Your task to perform on an android device: open app "Duolingo: language lessons" (install if not already installed) and enter user name: "omens@gmail.com" and password: "casks" Image 0: 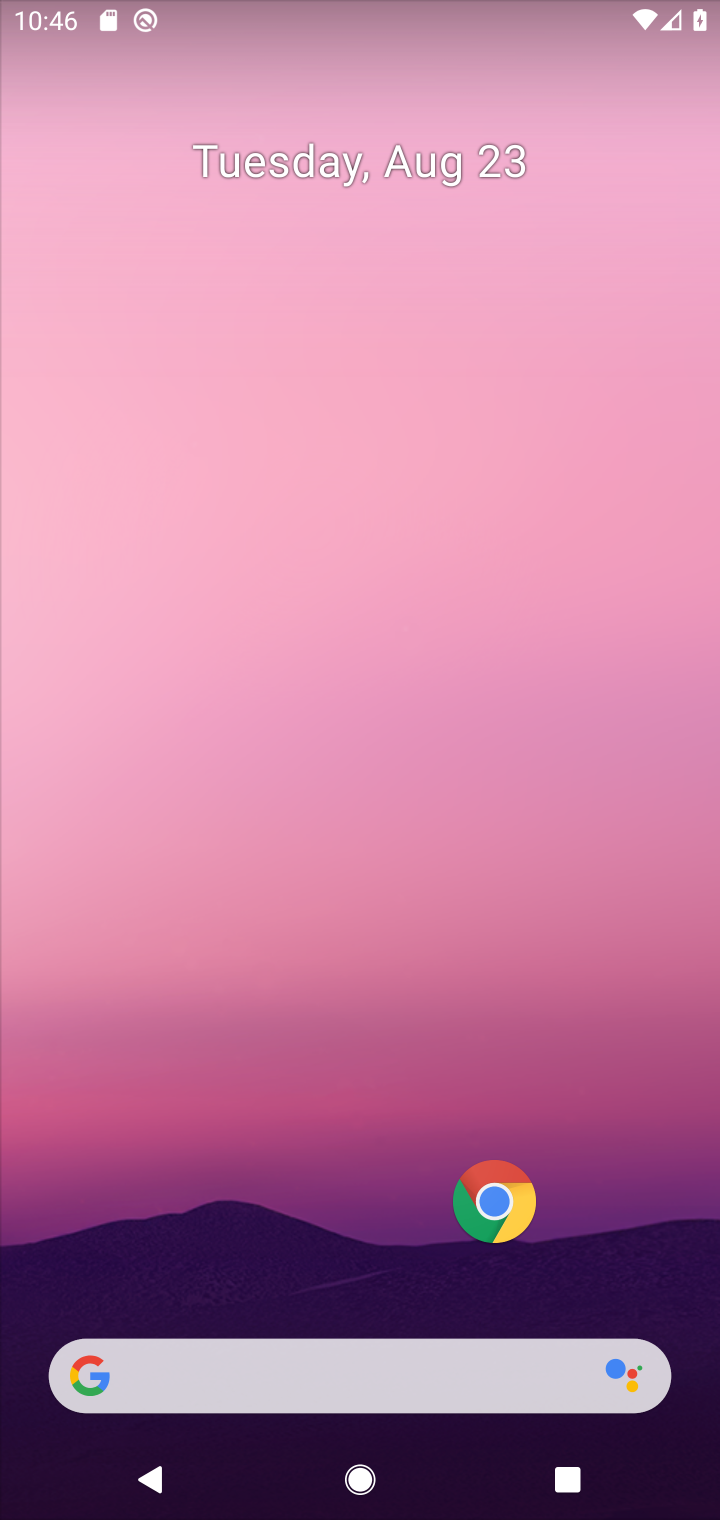
Step 0: drag from (254, 1060) to (293, 438)
Your task to perform on an android device: open app "Duolingo: language lessons" (install if not already installed) and enter user name: "omens@gmail.com" and password: "casks" Image 1: 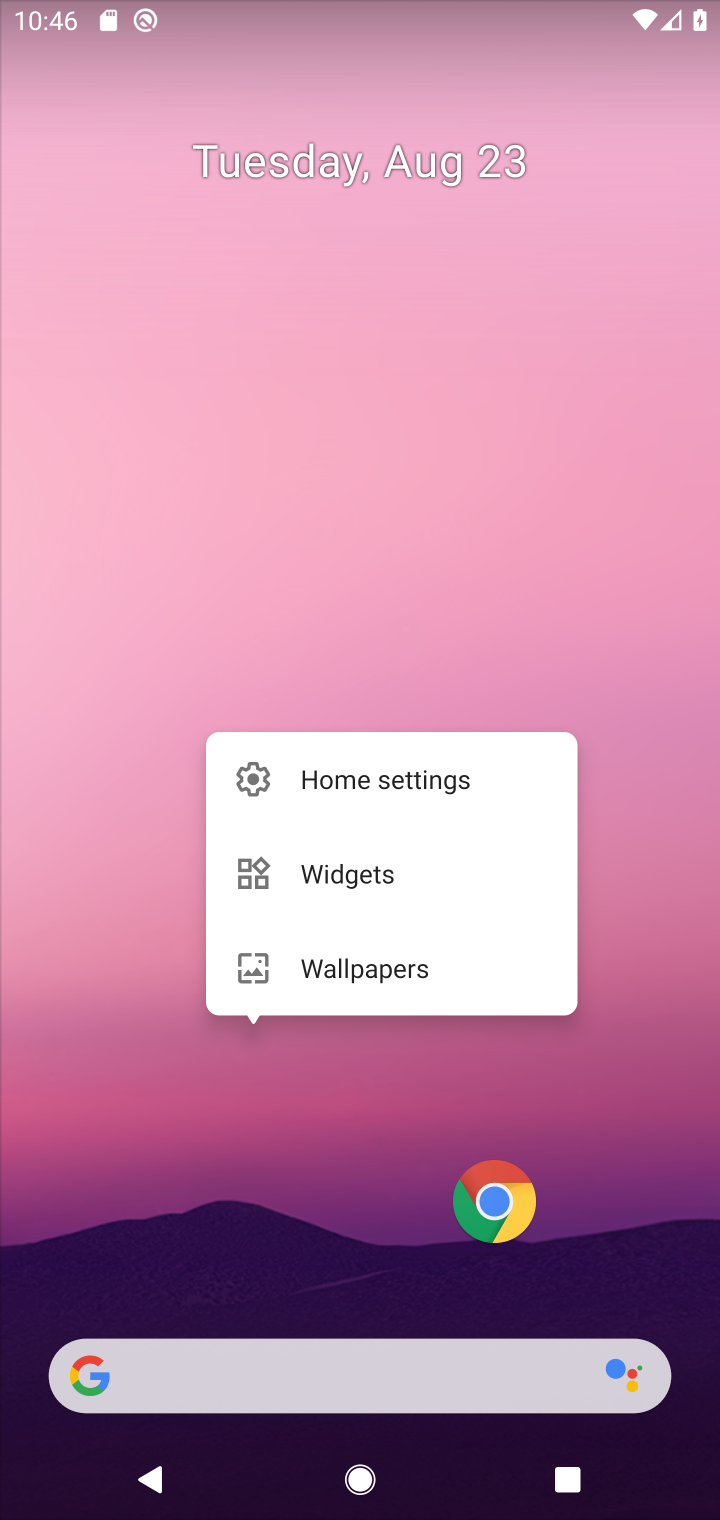
Step 1: click (274, 626)
Your task to perform on an android device: open app "Duolingo: language lessons" (install if not already installed) and enter user name: "omens@gmail.com" and password: "casks" Image 2: 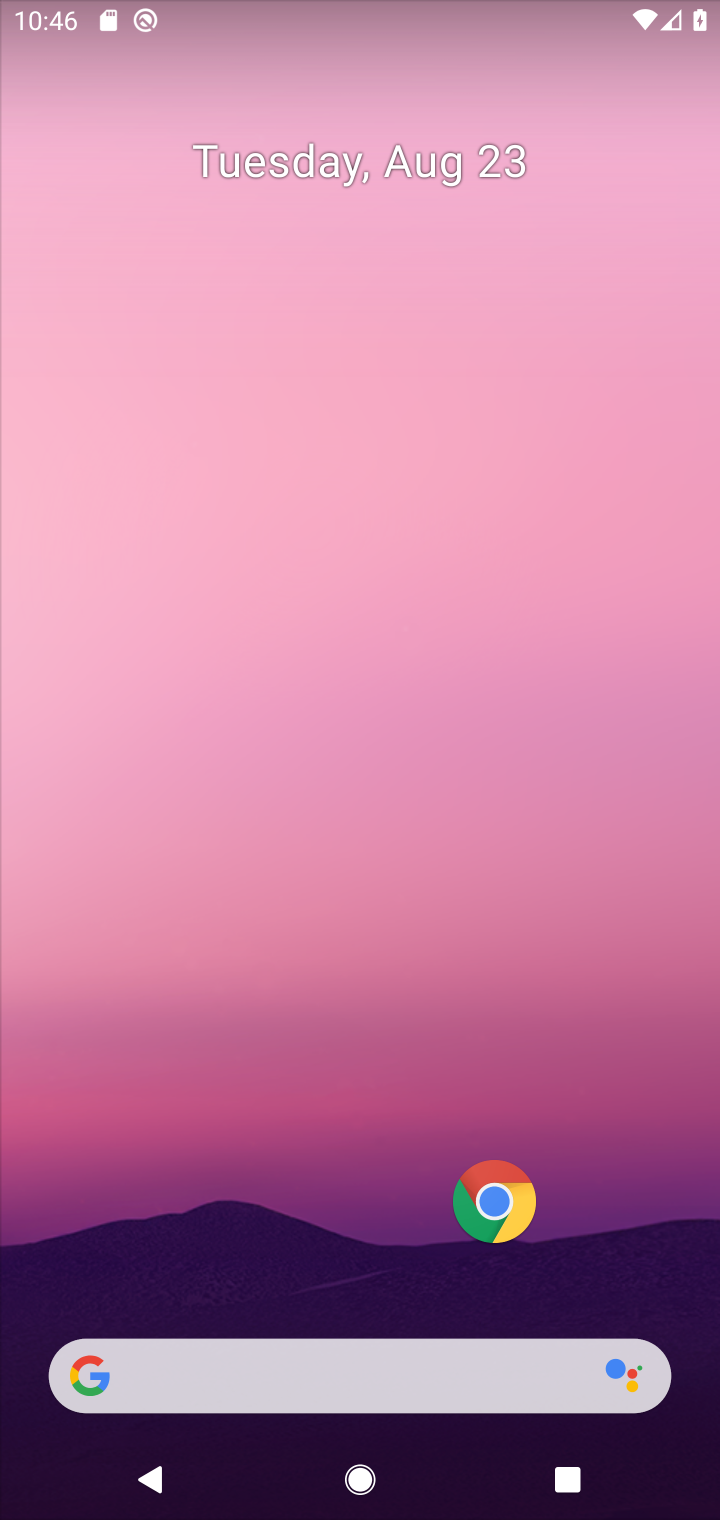
Step 2: drag from (323, 738) to (345, 297)
Your task to perform on an android device: open app "Duolingo: language lessons" (install if not already installed) and enter user name: "omens@gmail.com" and password: "casks" Image 3: 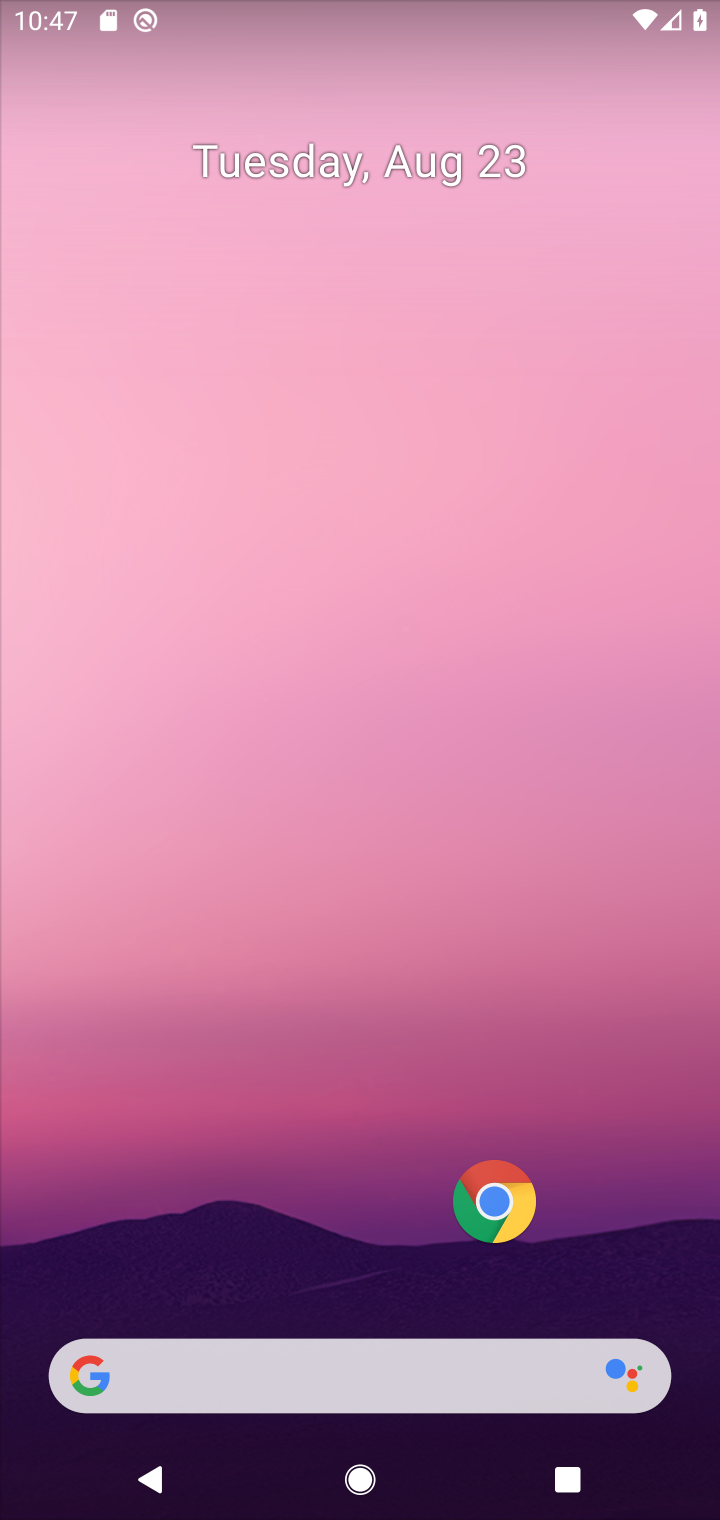
Step 3: drag from (266, 1308) to (282, 415)
Your task to perform on an android device: open app "Duolingo: language lessons" (install if not already installed) and enter user name: "omens@gmail.com" and password: "casks" Image 4: 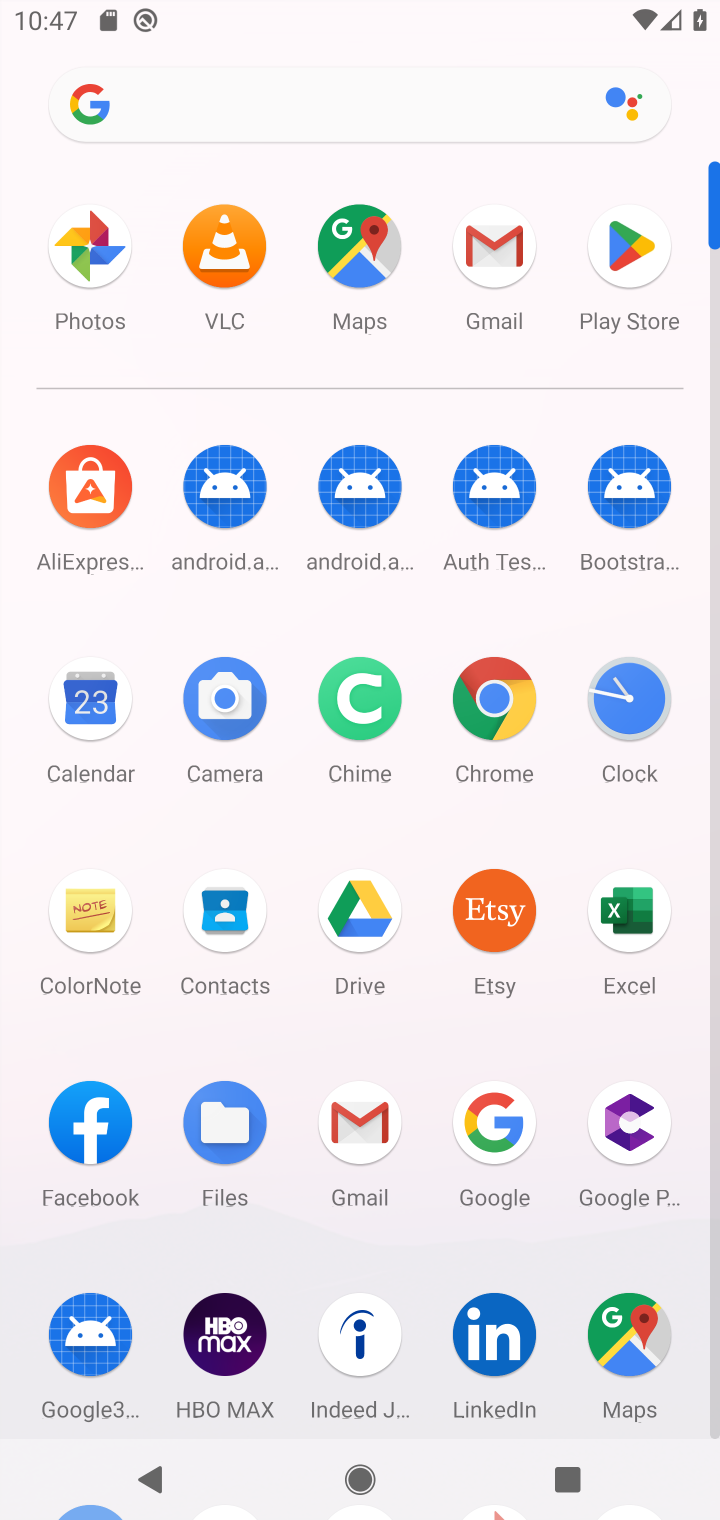
Step 4: drag from (422, 1186) to (459, 190)
Your task to perform on an android device: open app "Duolingo: language lessons" (install if not already installed) and enter user name: "omens@gmail.com" and password: "casks" Image 5: 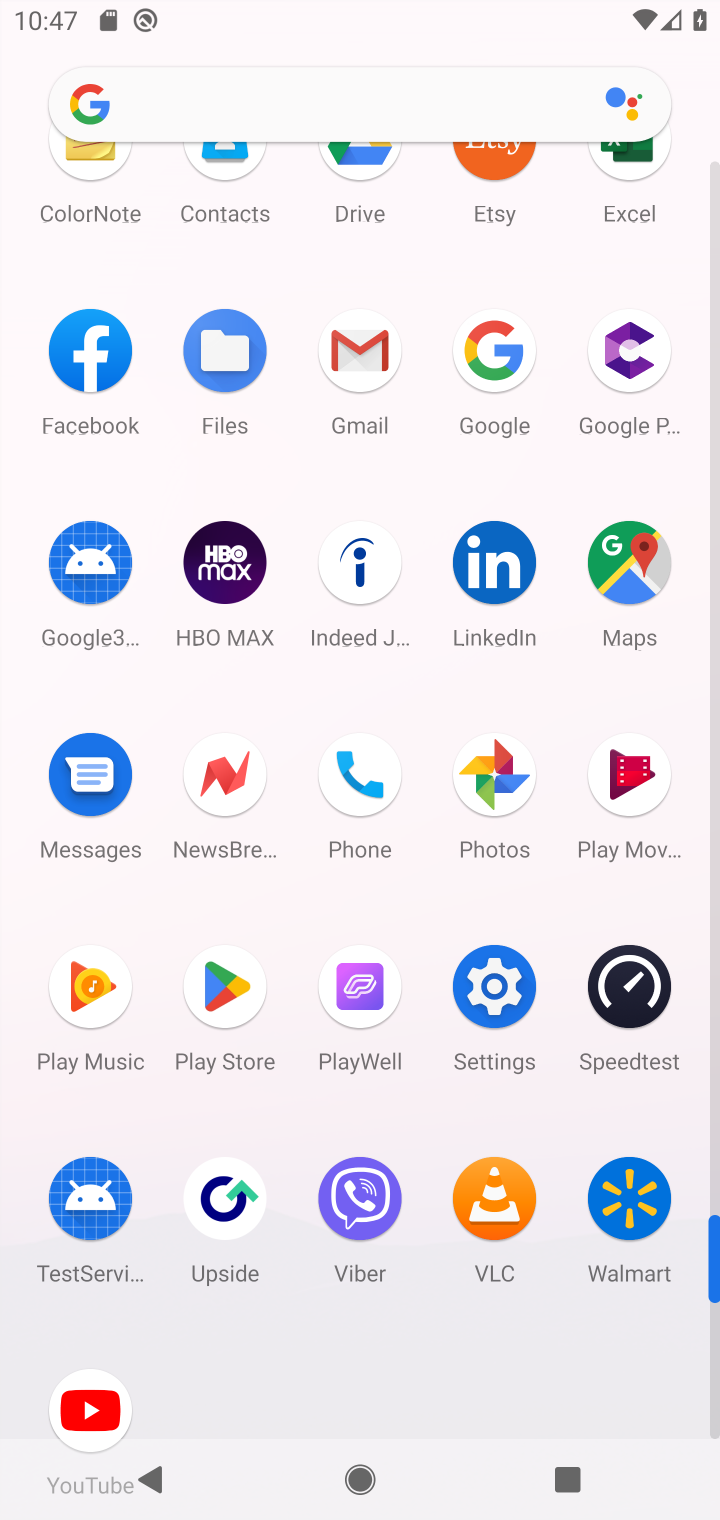
Step 5: click (224, 984)
Your task to perform on an android device: open app "Duolingo: language lessons" (install if not already installed) and enter user name: "omens@gmail.com" and password: "casks" Image 6: 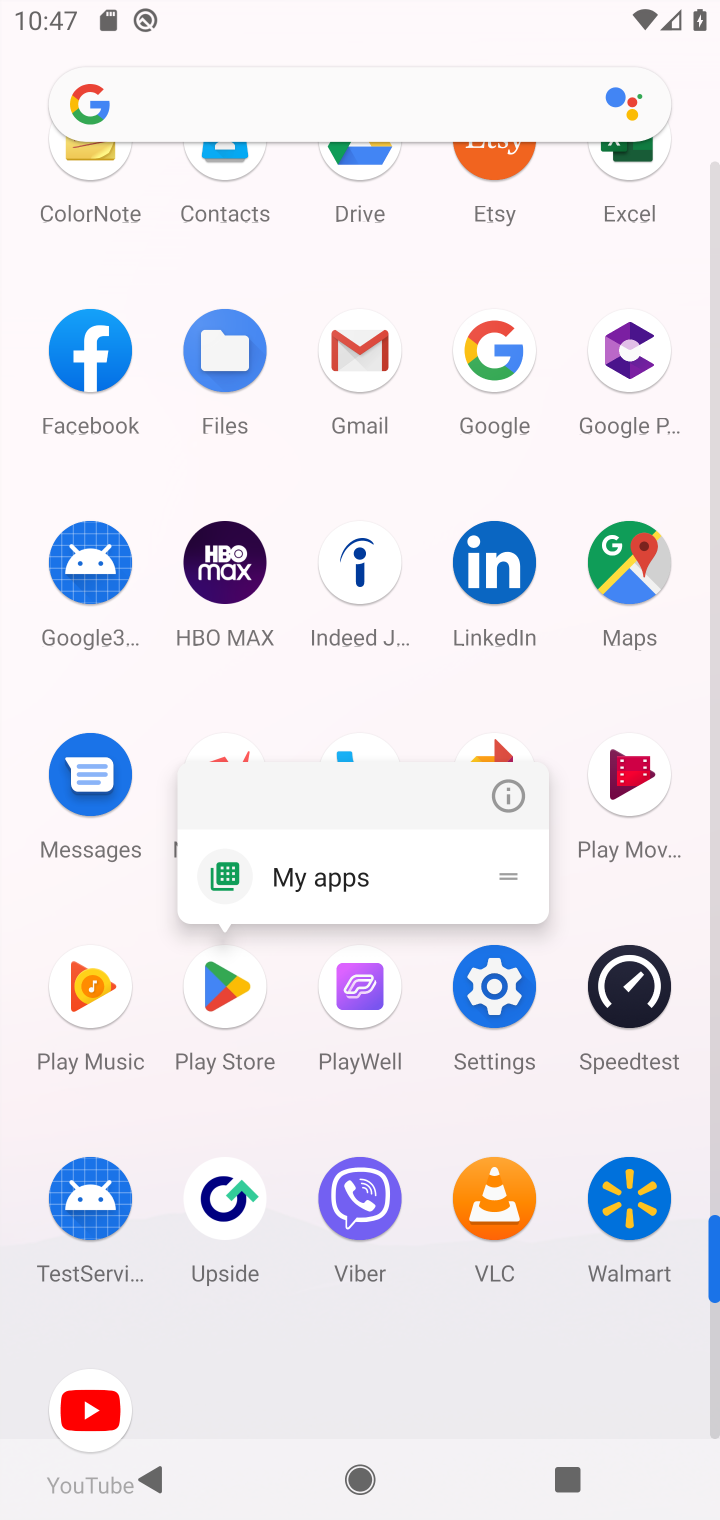
Step 6: click (224, 992)
Your task to perform on an android device: open app "Duolingo: language lessons" (install if not already installed) and enter user name: "omens@gmail.com" and password: "casks" Image 7: 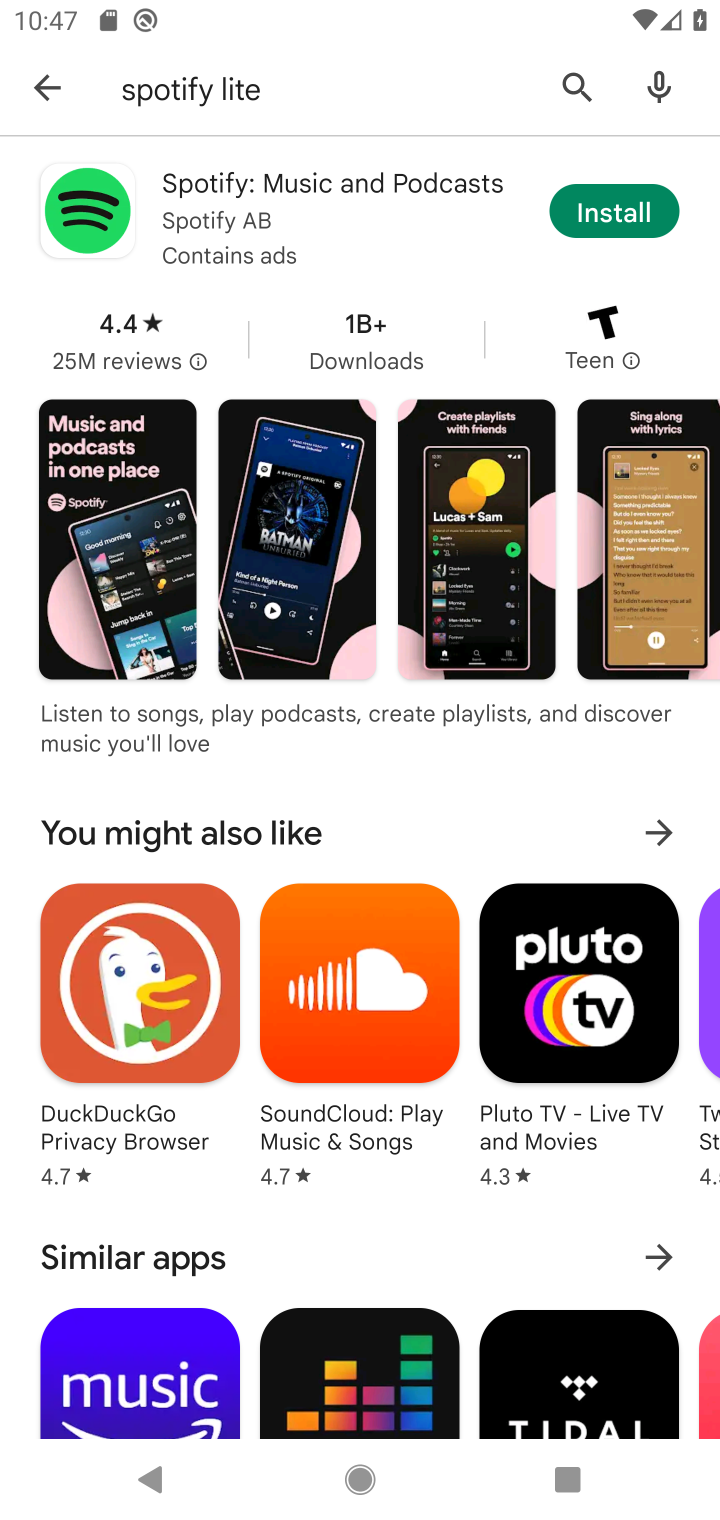
Step 7: click (52, 103)
Your task to perform on an android device: open app "Duolingo: language lessons" (install if not already installed) and enter user name: "omens@gmail.com" and password: "casks" Image 8: 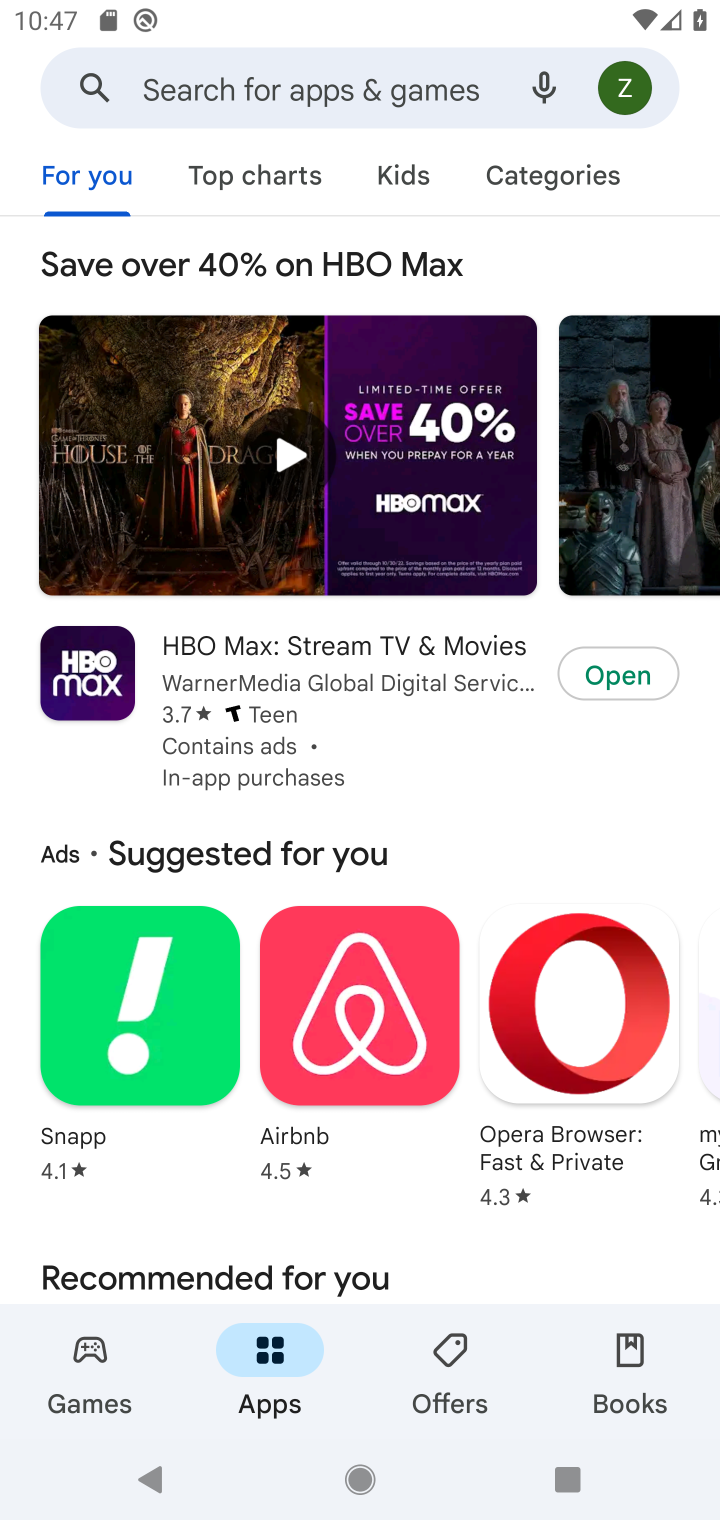
Step 8: click (305, 92)
Your task to perform on an android device: open app "Duolingo: language lessons" (install if not already installed) and enter user name: "omens@gmail.com" and password: "casks" Image 9: 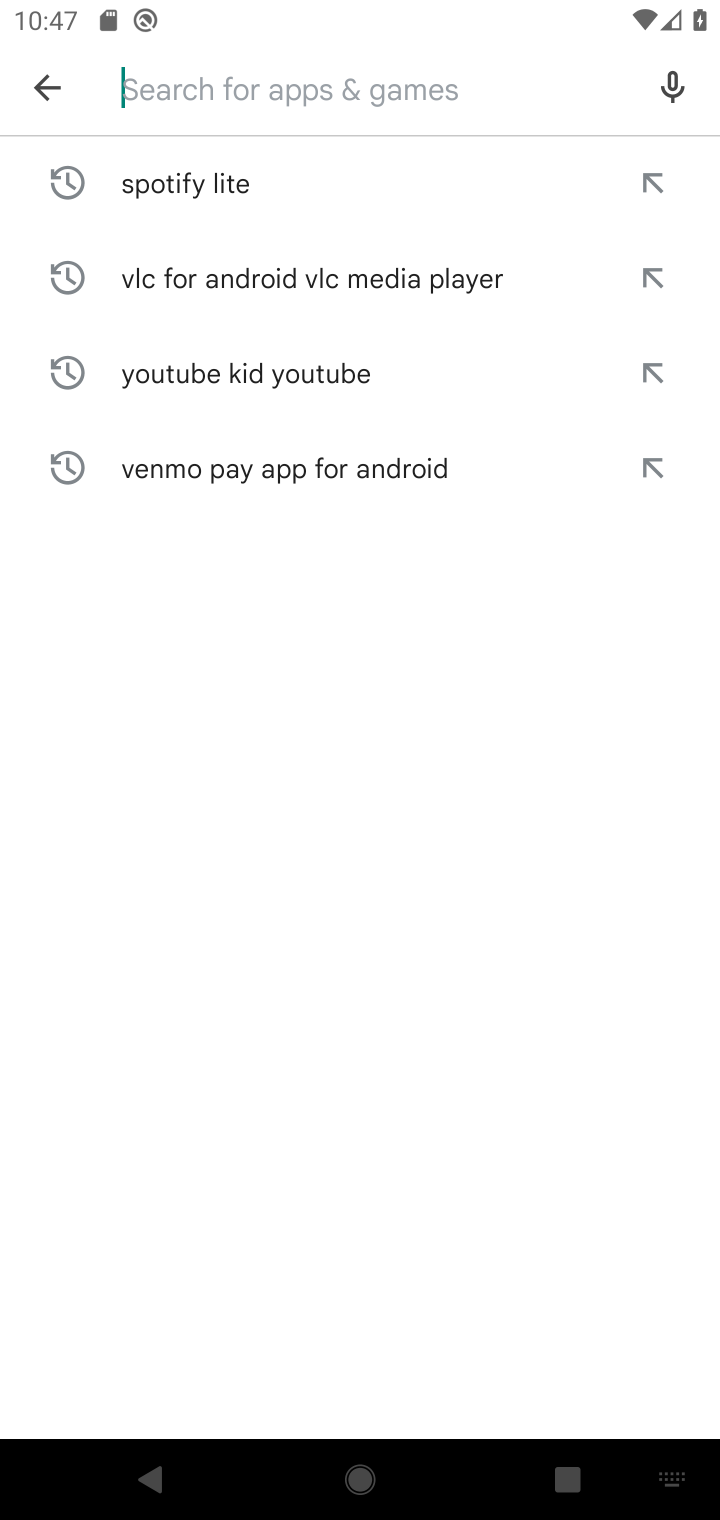
Step 9: type "Duolingo: language lessons "
Your task to perform on an android device: open app "Duolingo: language lessons" (install if not already installed) and enter user name: "omens@gmail.com" and password: "casks" Image 10: 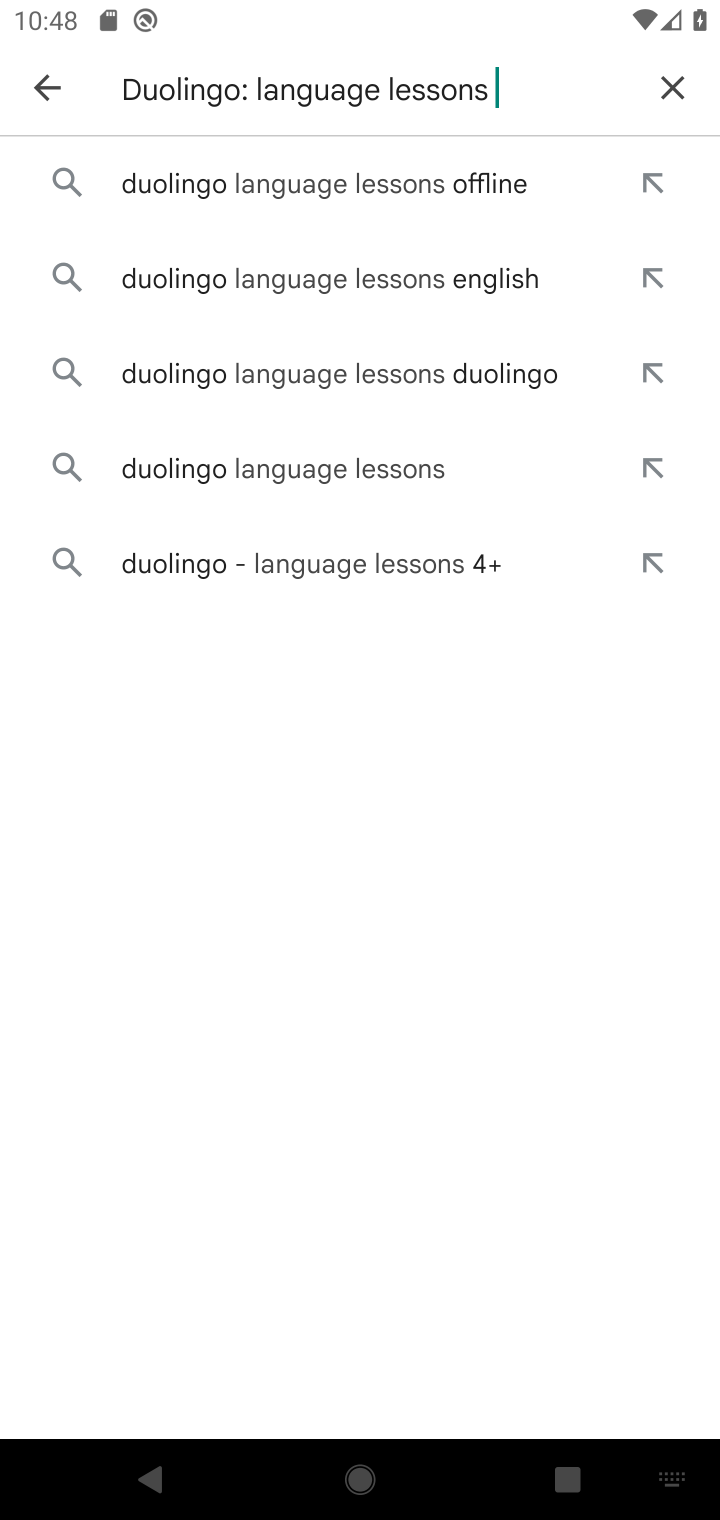
Step 10: click (266, 175)
Your task to perform on an android device: open app "Duolingo: language lessons" (install if not already installed) and enter user name: "omens@gmail.com" and password: "casks" Image 11: 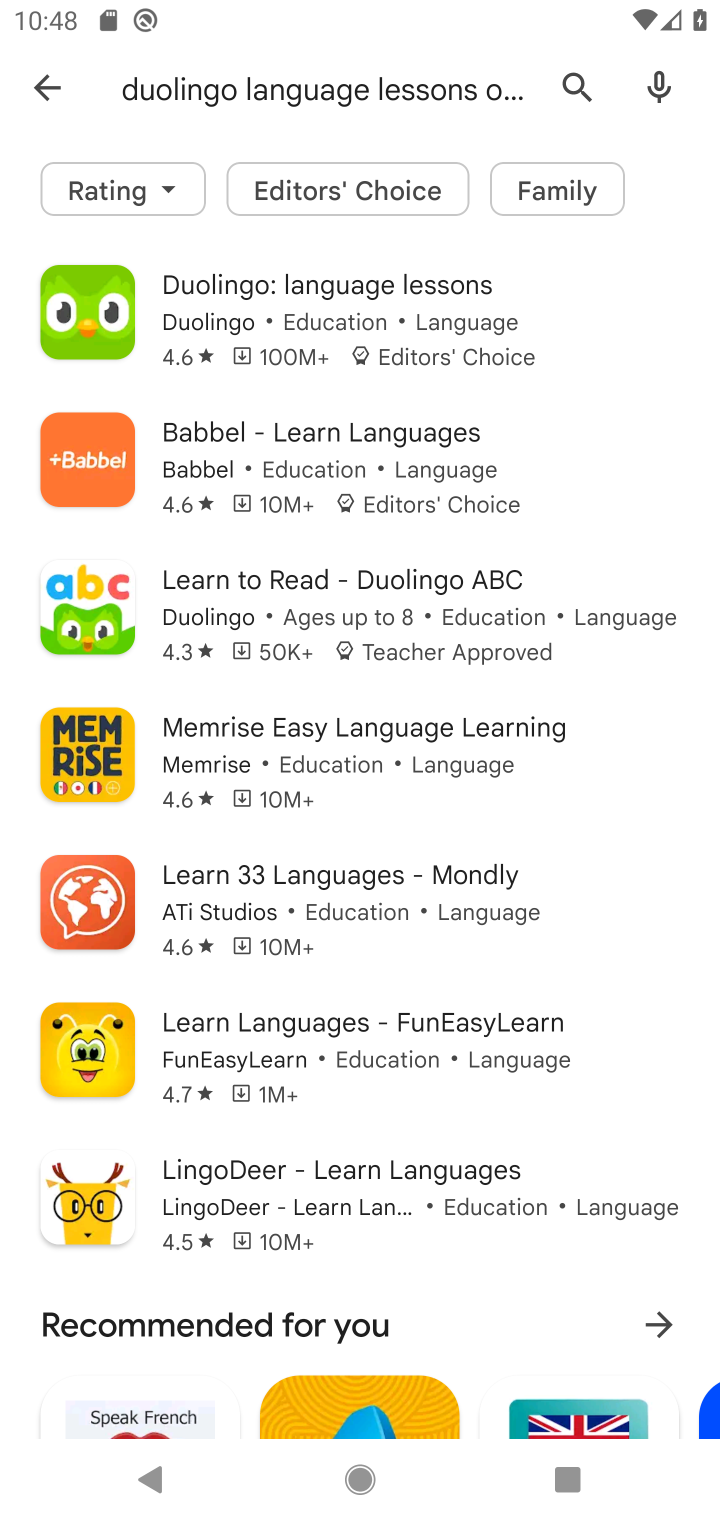
Step 11: click (232, 317)
Your task to perform on an android device: open app "Duolingo: language lessons" (install if not already installed) and enter user name: "omens@gmail.com" and password: "casks" Image 12: 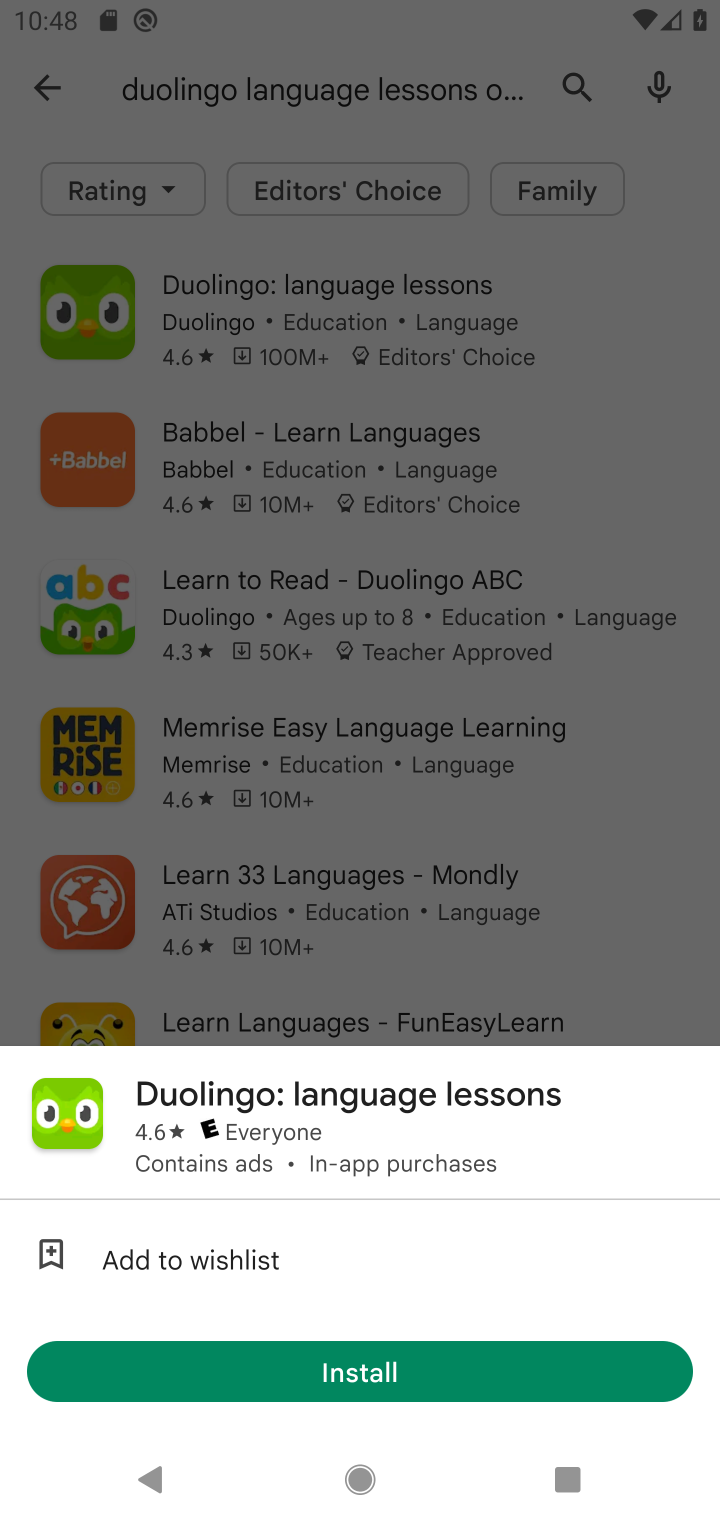
Step 12: task complete